Your task to perform on an android device: Open Google Chrome and click the shortcut for Amazon.com Image 0: 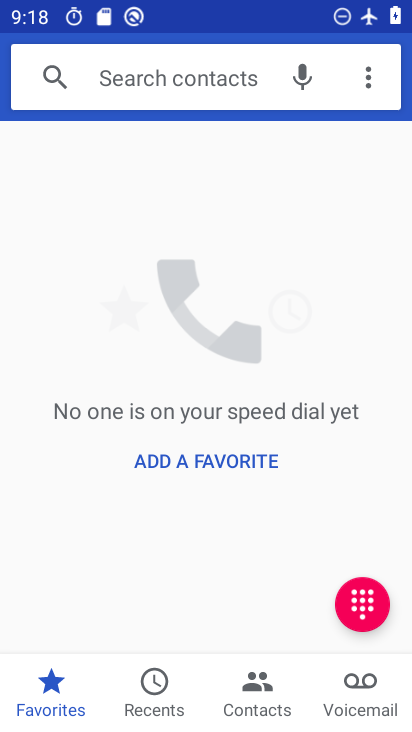
Step 0: press home button
Your task to perform on an android device: Open Google Chrome and click the shortcut for Amazon.com Image 1: 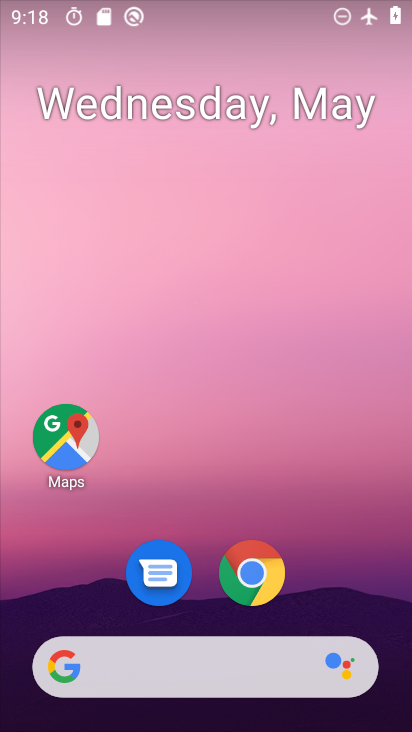
Step 1: click (257, 584)
Your task to perform on an android device: Open Google Chrome and click the shortcut for Amazon.com Image 2: 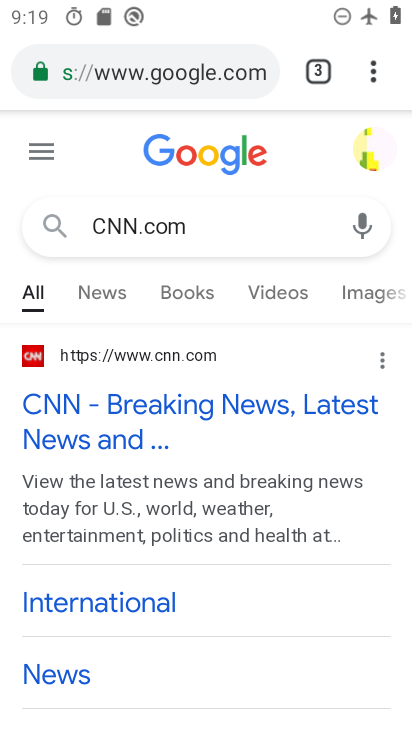
Step 2: click (370, 68)
Your task to perform on an android device: Open Google Chrome and click the shortcut for Amazon.com Image 3: 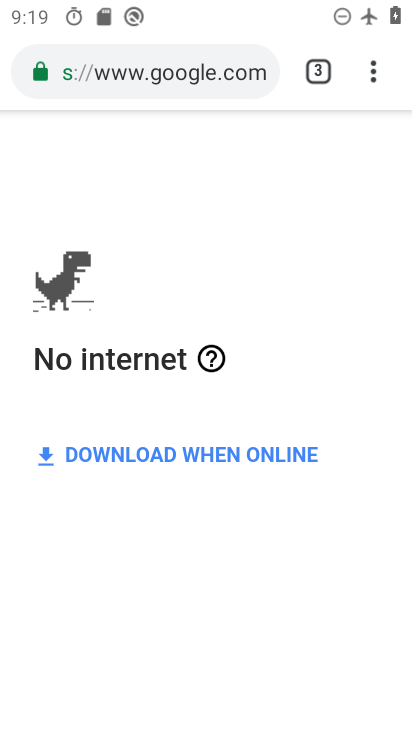
Step 3: task complete